Your task to perform on an android device: change timer sound Image 0: 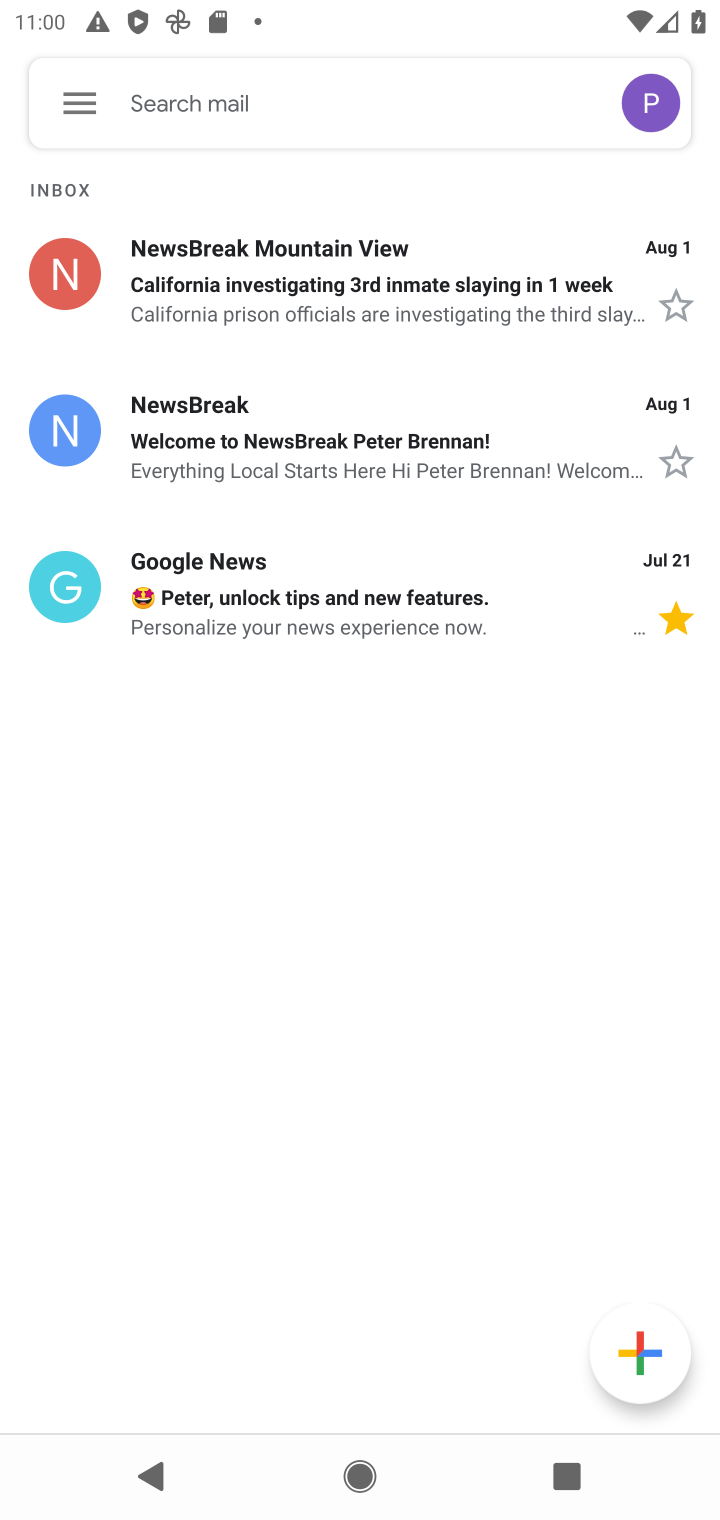
Step 0: press home button
Your task to perform on an android device: change timer sound Image 1: 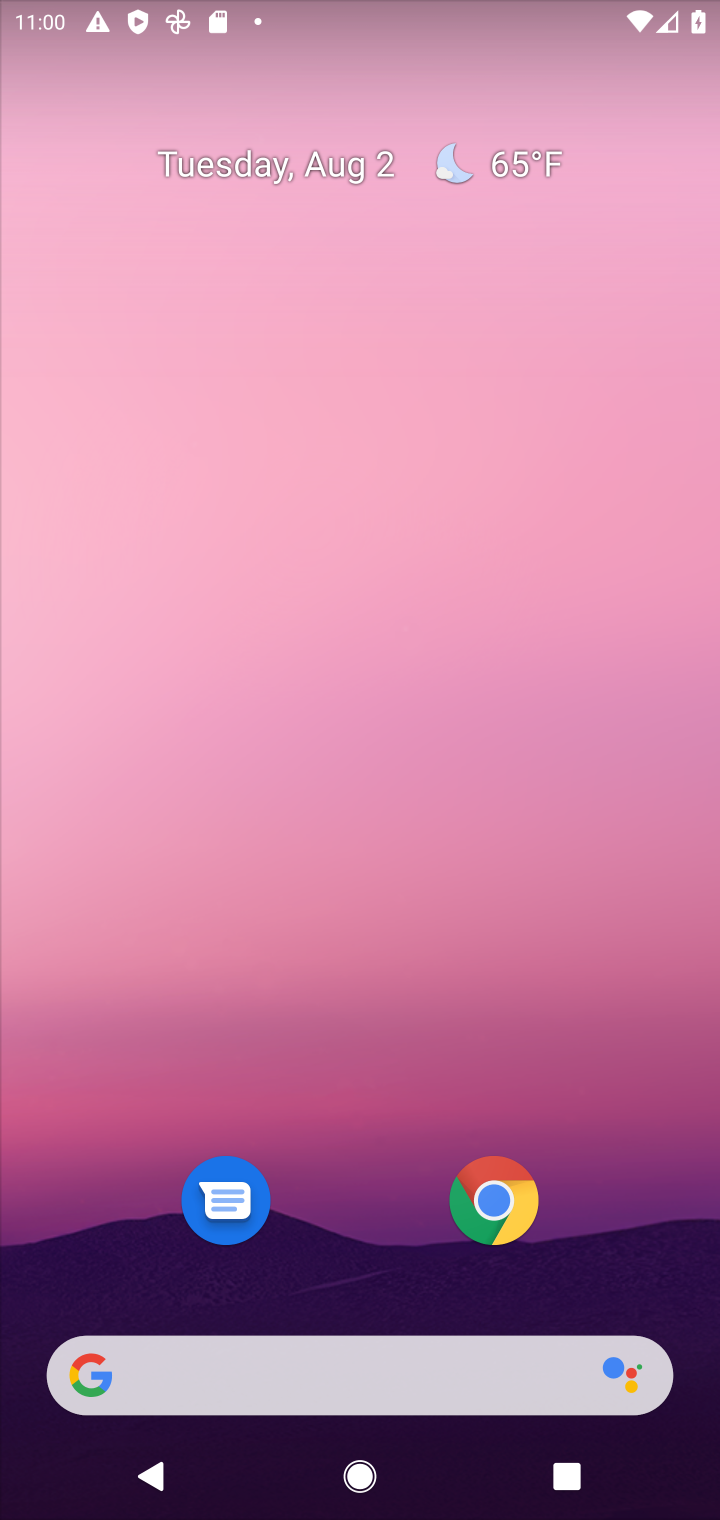
Step 1: drag from (665, 1301) to (612, 208)
Your task to perform on an android device: change timer sound Image 2: 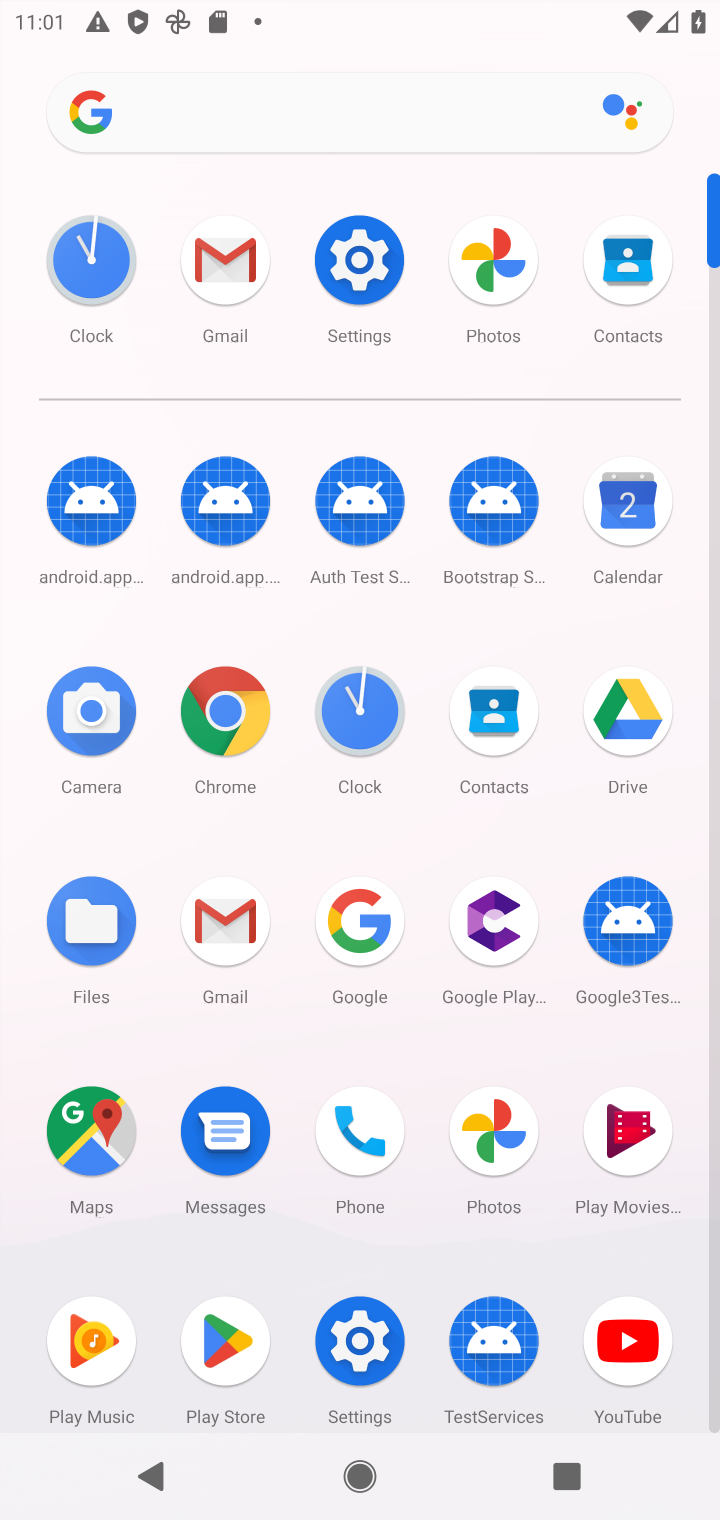
Step 2: click (361, 713)
Your task to perform on an android device: change timer sound Image 3: 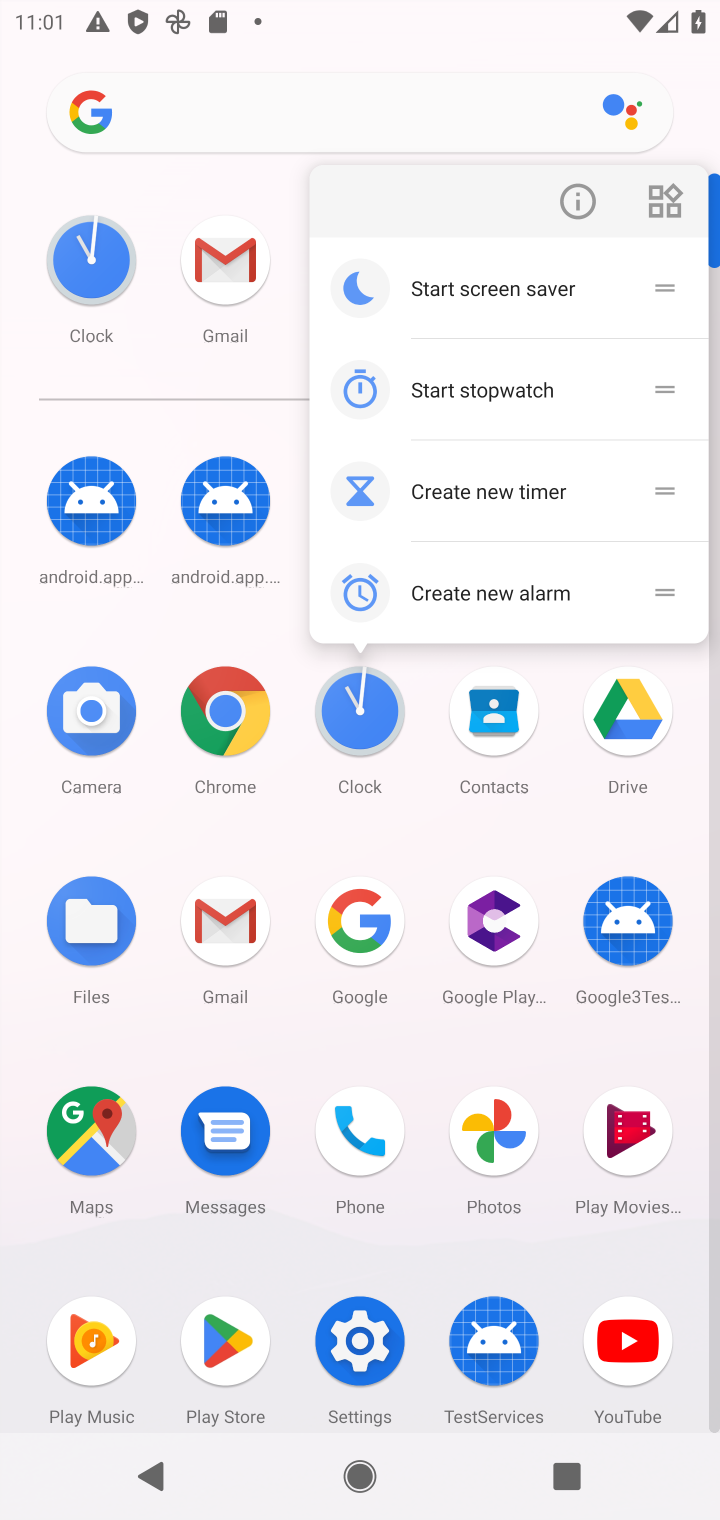
Step 3: click (358, 714)
Your task to perform on an android device: change timer sound Image 4: 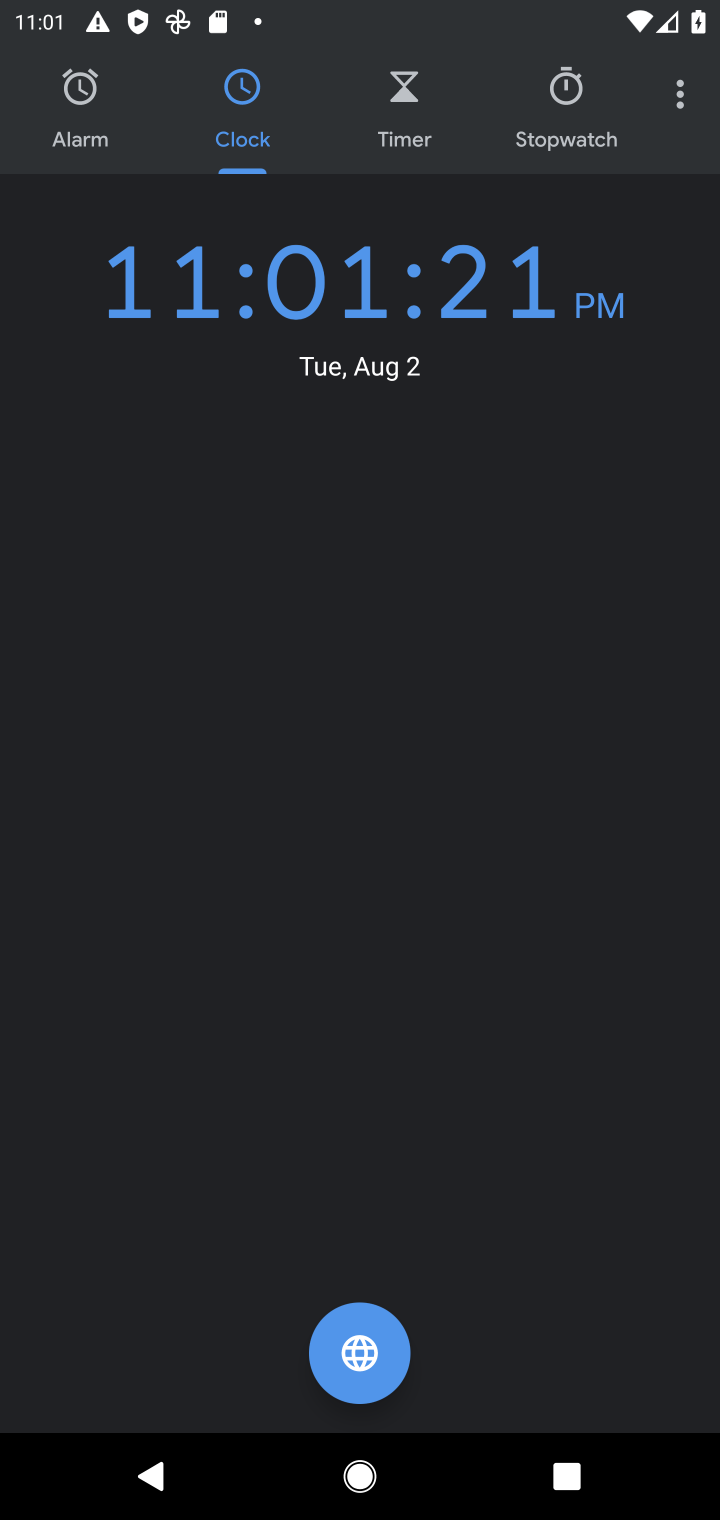
Step 4: click (678, 110)
Your task to perform on an android device: change timer sound Image 5: 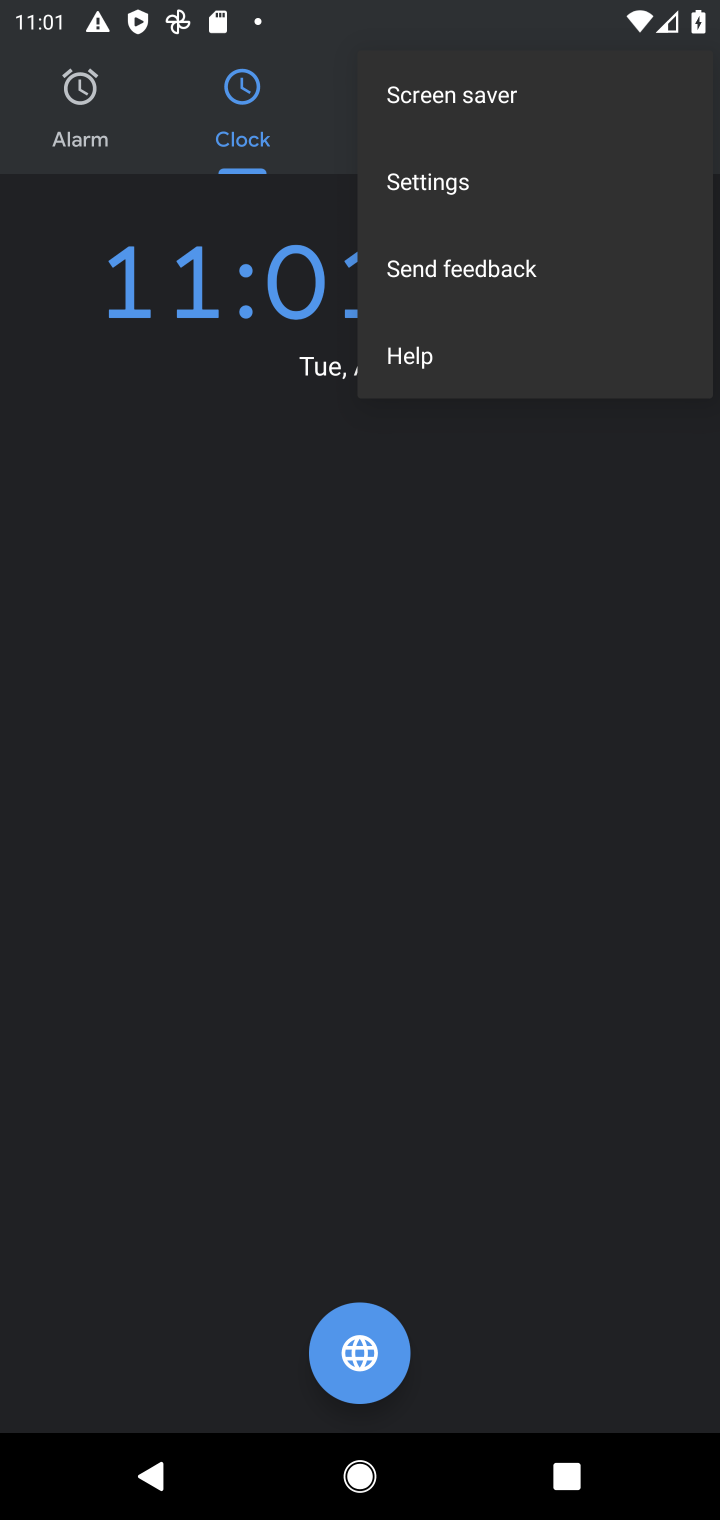
Step 5: click (434, 183)
Your task to perform on an android device: change timer sound Image 6: 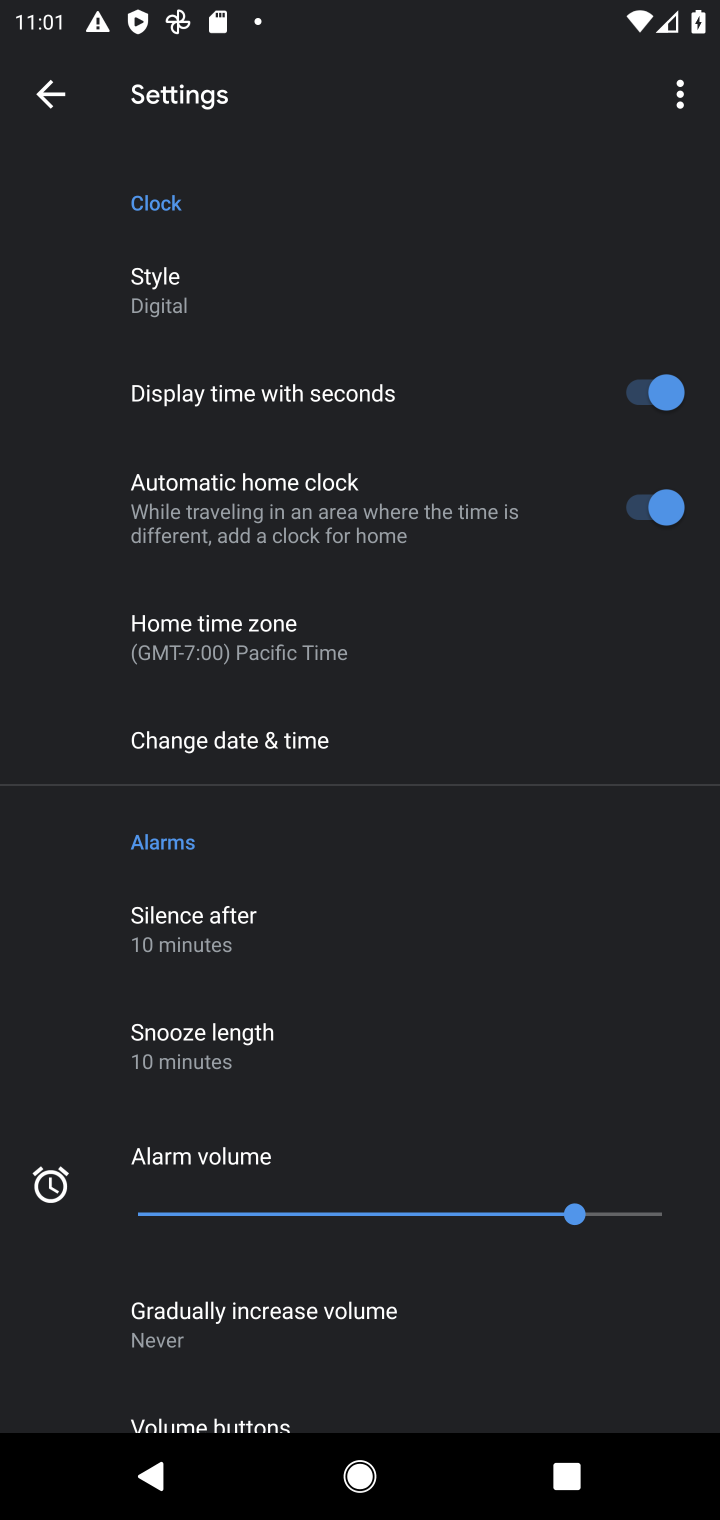
Step 6: drag from (390, 1107) to (393, 282)
Your task to perform on an android device: change timer sound Image 7: 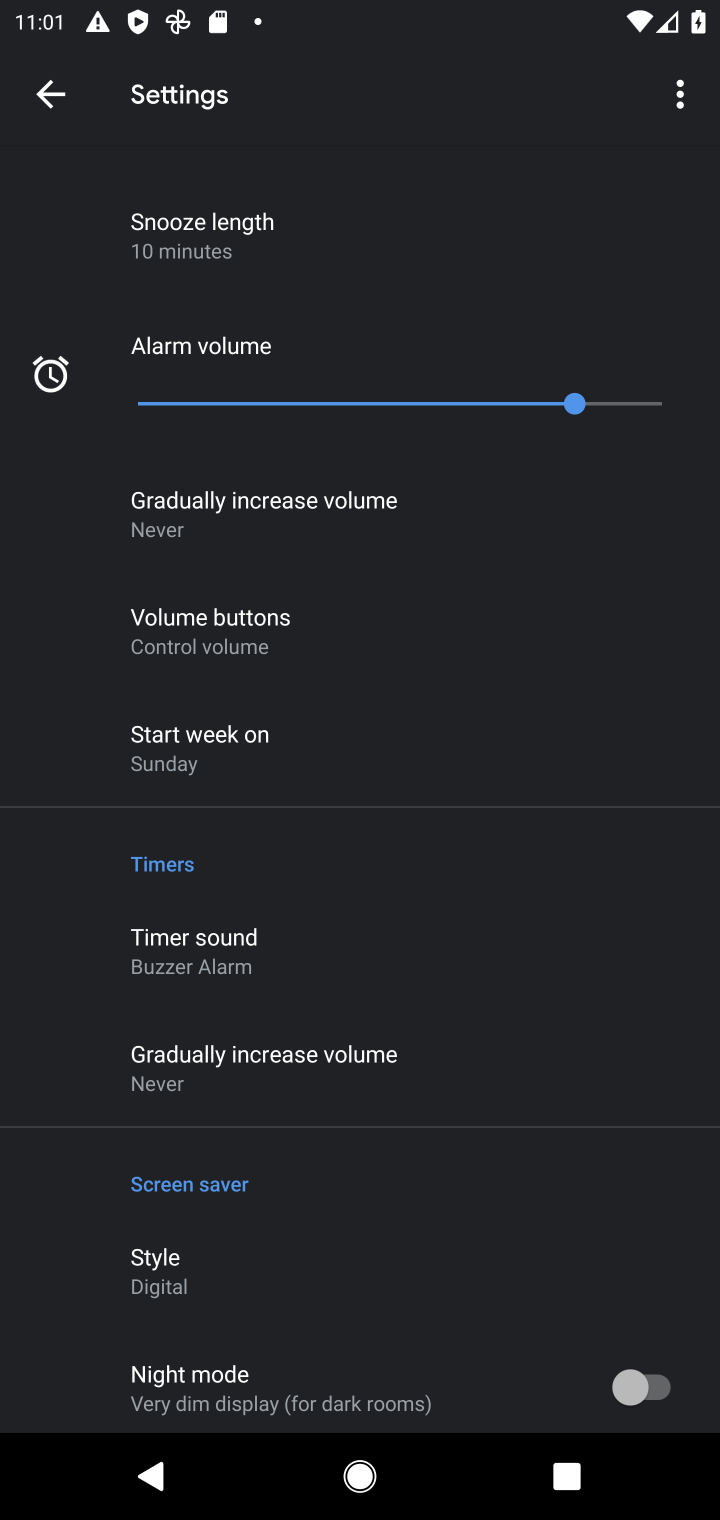
Step 7: click (200, 961)
Your task to perform on an android device: change timer sound Image 8: 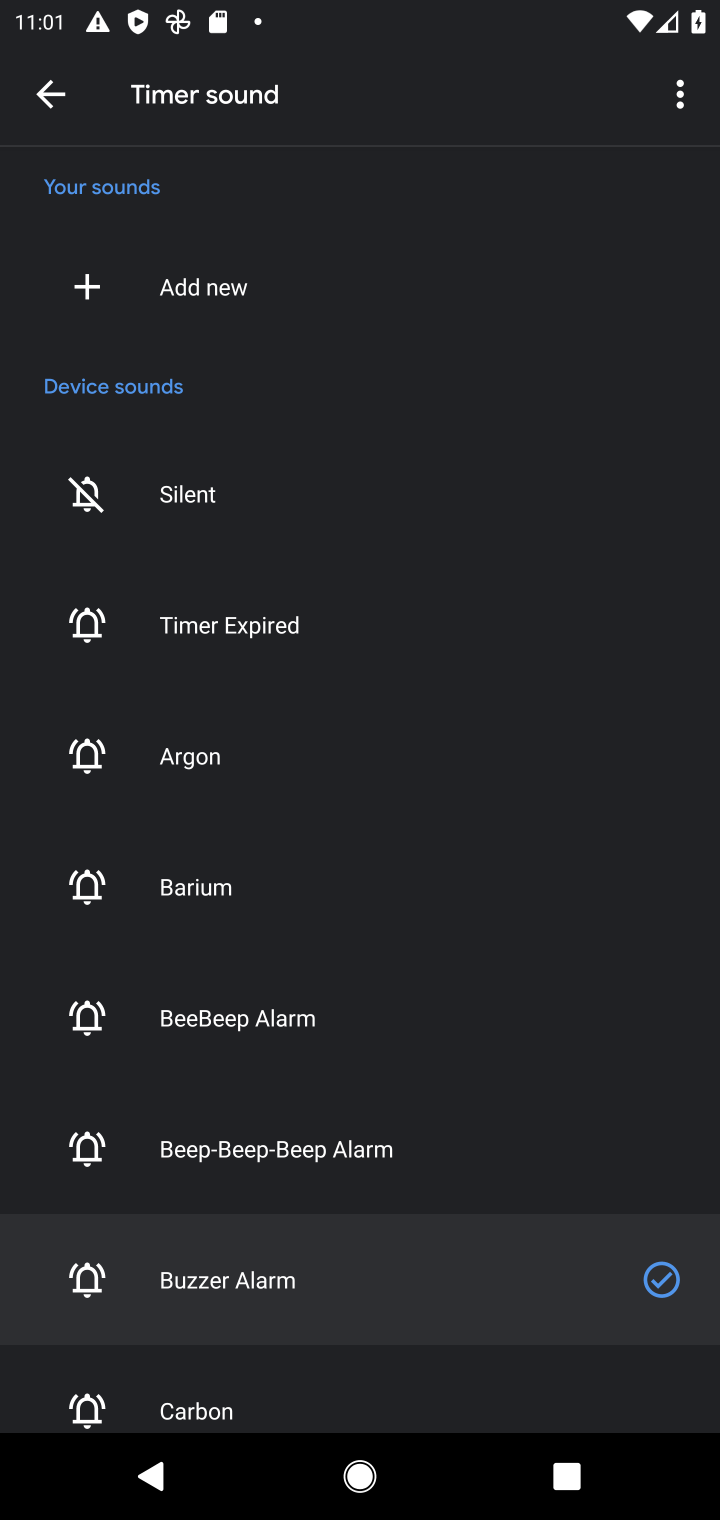
Step 8: drag from (448, 1137) to (483, 251)
Your task to perform on an android device: change timer sound Image 9: 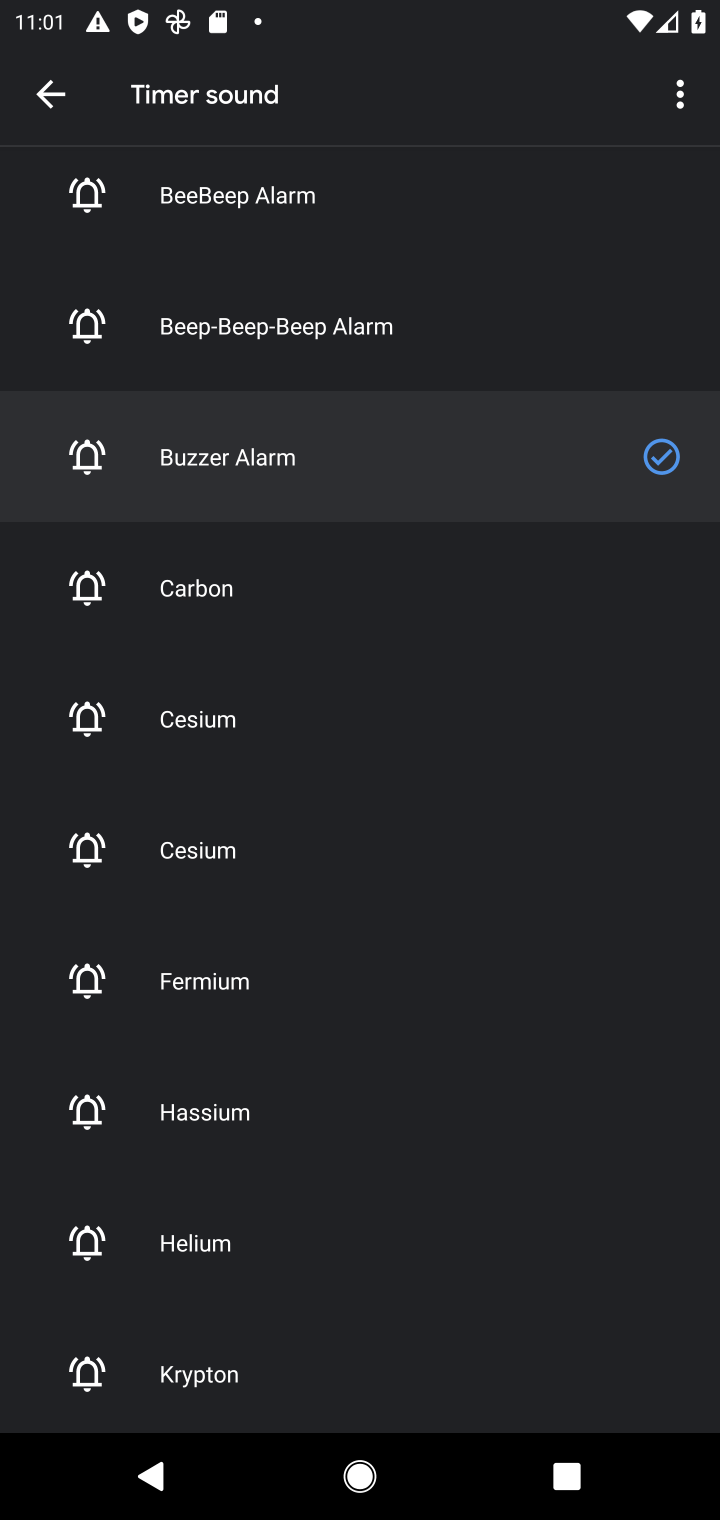
Step 9: click (420, 306)
Your task to perform on an android device: change timer sound Image 10: 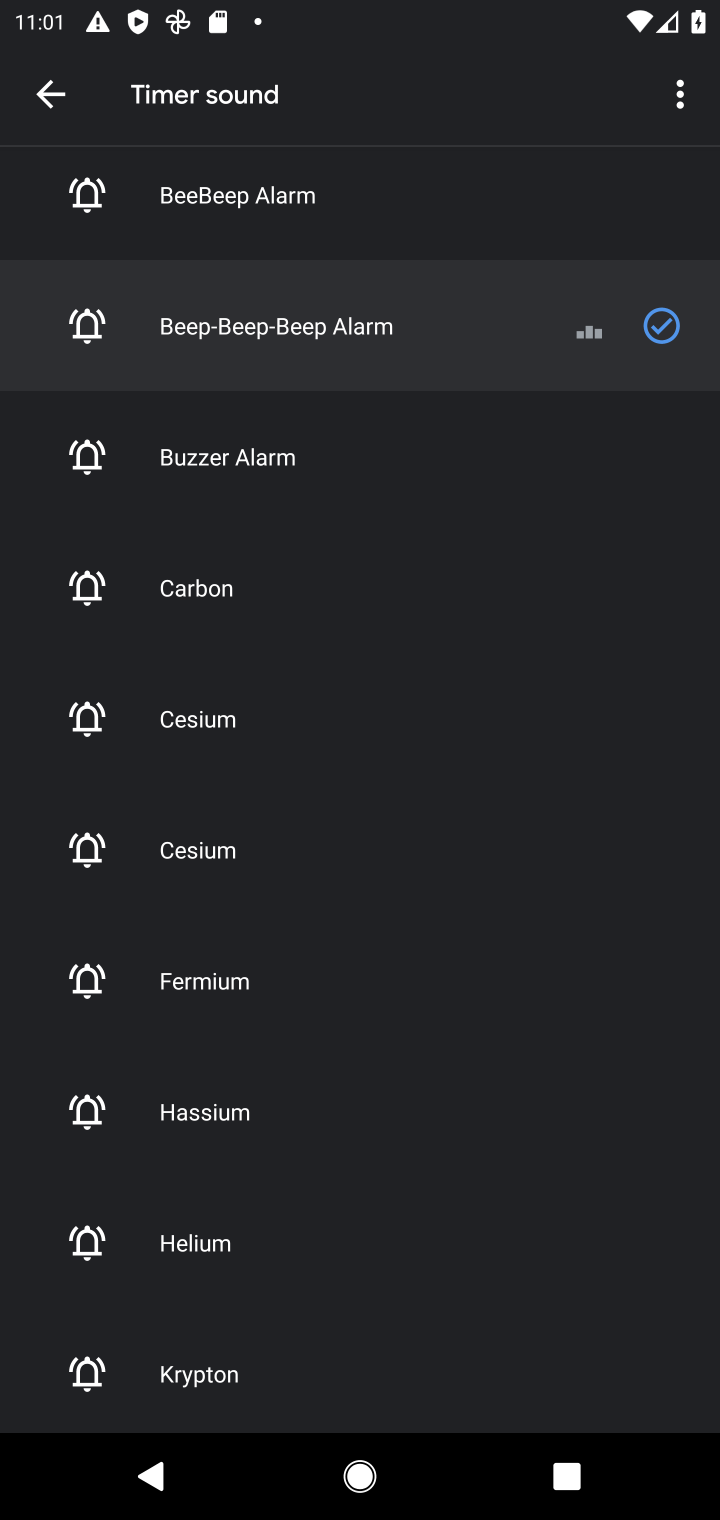
Step 10: drag from (373, 1343) to (403, 272)
Your task to perform on an android device: change timer sound Image 11: 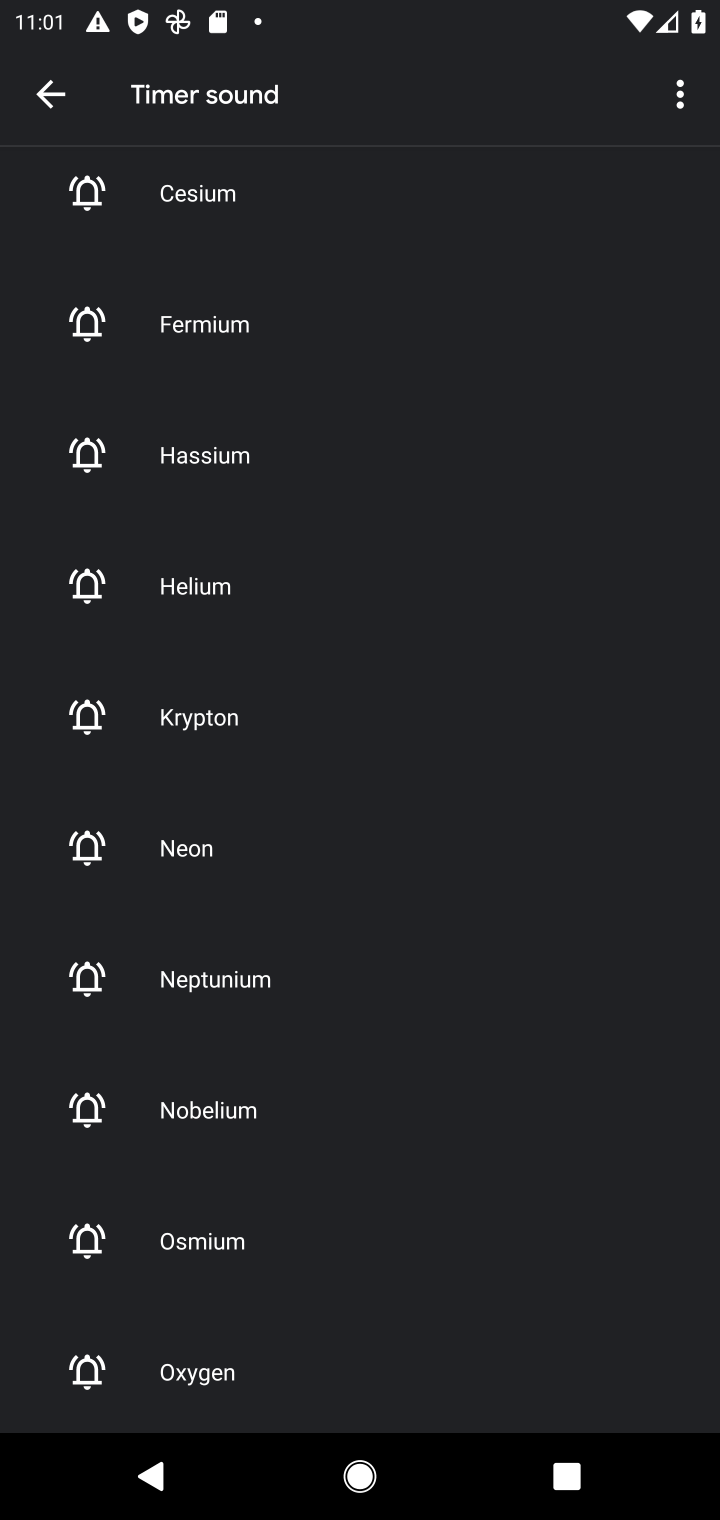
Step 11: click (191, 321)
Your task to perform on an android device: change timer sound Image 12: 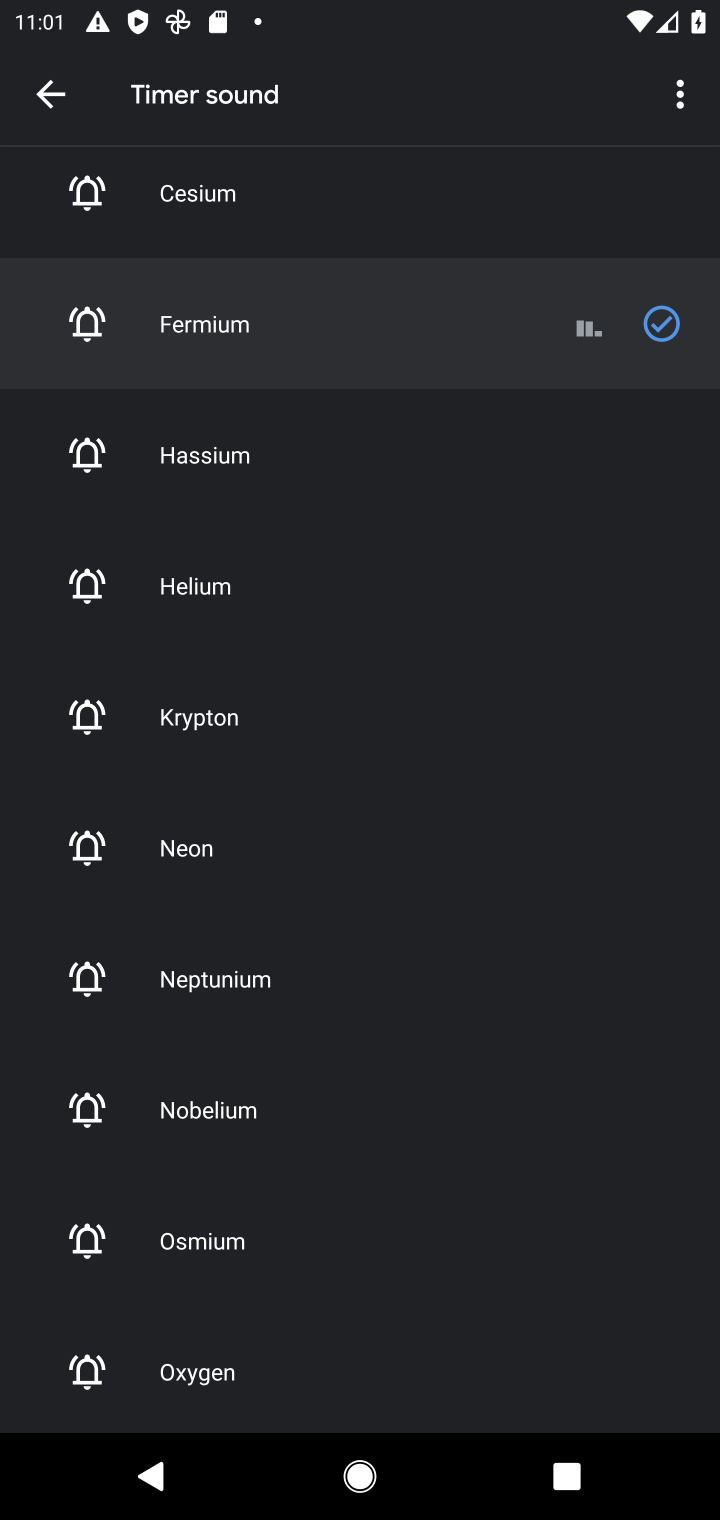
Step 12: task complete